Your task to perform on an android device: Play the last video I watched on Youtube Image 0: 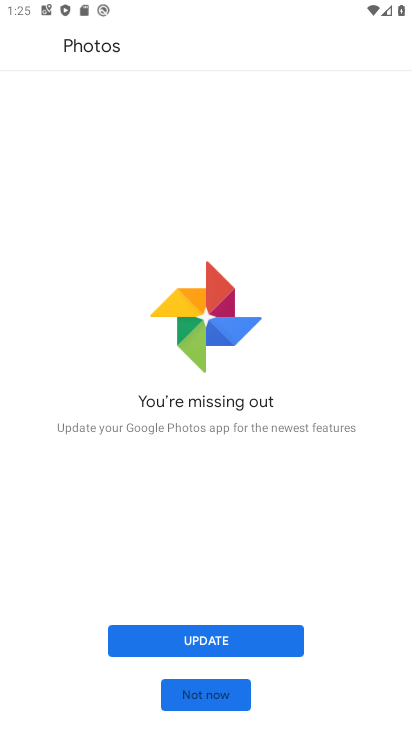
Step 0: press home button
Your task to perform on an android device: Play the last video I watched on Youtube Image 1: 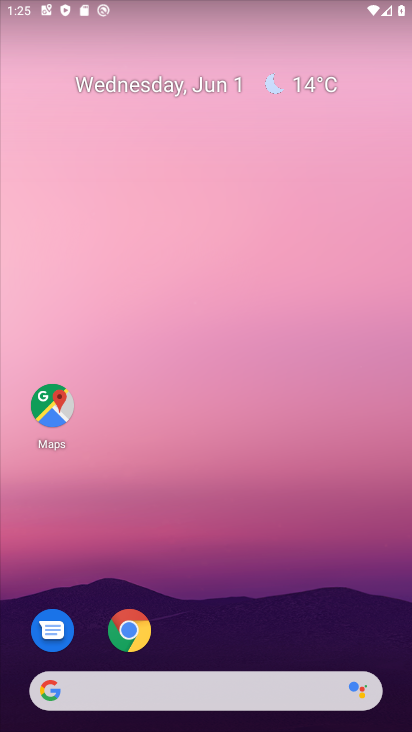
Step 1: drag from (207, 651) to (268, 94)
Your task to perform on an android device: Play the last video I watched on Youtube Image 2: 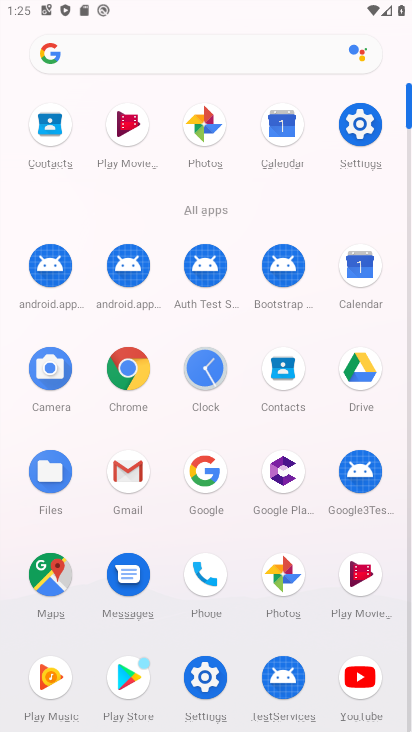
Step 2: click (358, 672)
Your task to perform on an android device: Play the last video I watched on Youtube Image 3: 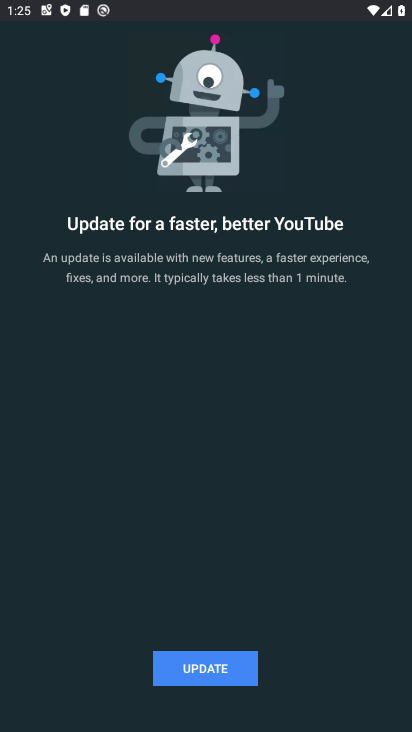
Step 3: click (204, 665)
Your task to perform on an android device: Play the last video I watched on Youtube Image 4: 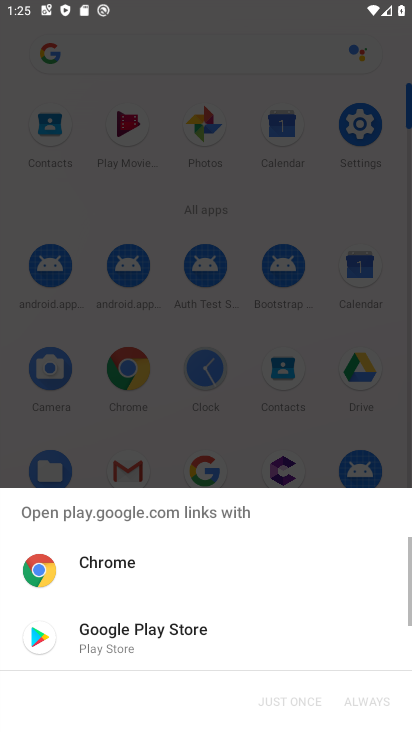
Step 4: click (86, 639)
Your task to perform on an android device: Play the last video I watched on Youtube Image 5: 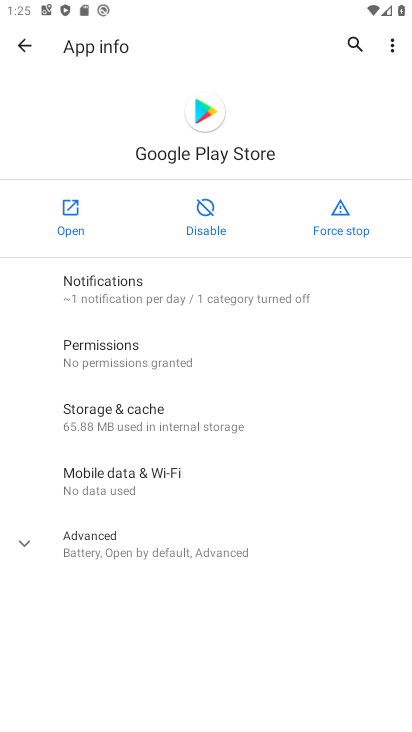
Step 5: click (31, 39)
Your task to perform on an android device: Play the last video I watched on Youtube Image 6: 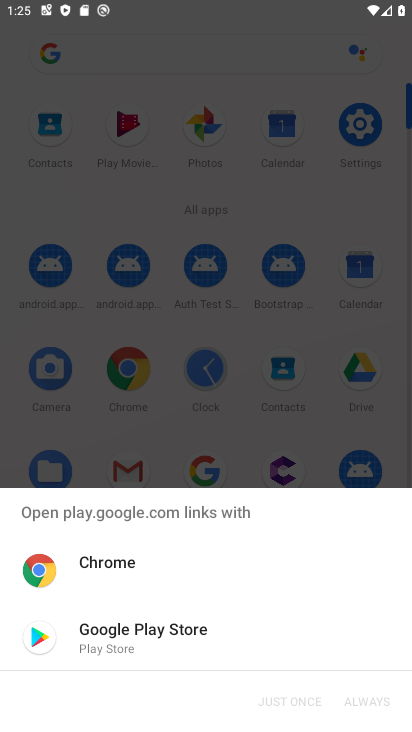
Step 6: click (251, 428)
Your task to perform on an android device: Play the last video I watched on Youtube Image 7: 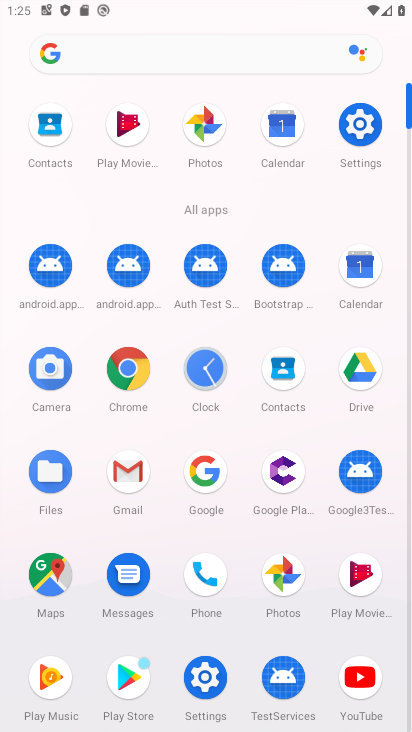
Step 7: click (356, 667)
Your task to perform on an android device: Play the last video I watched on Youtube Image 8: 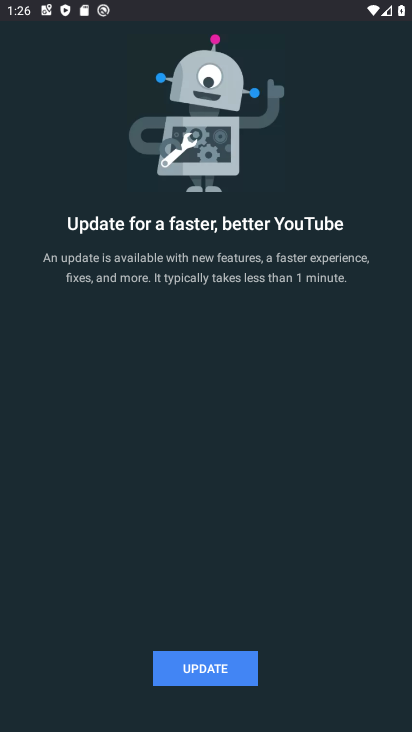
Step 8: click (206, 669)
Your task to perform on an android device: Play the last video I watched on Youtube Image 9: 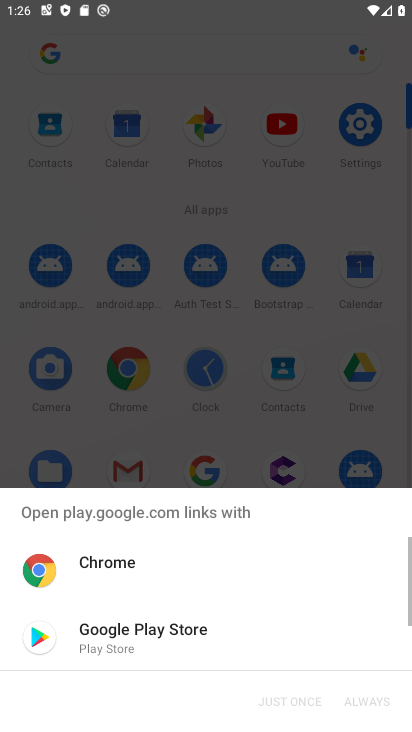
Step 9: click (102, 631)
Your task to perform on an android device: Play the last video I watched on Youtube Image 10: 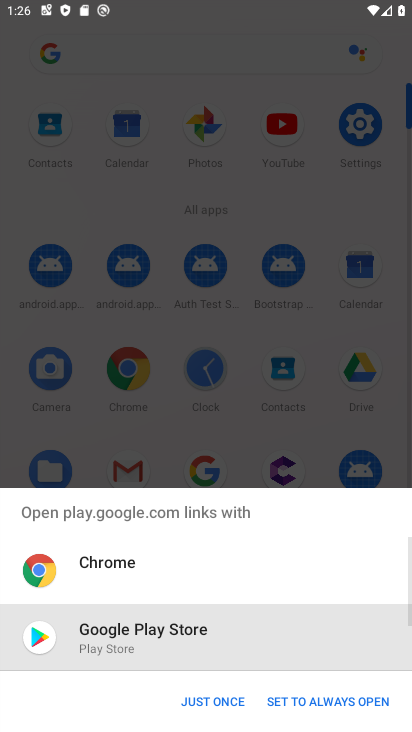
Step 10: click (213, 703)
Your task to perform on an android device: Play the last video I watched on Youtube Image 11: 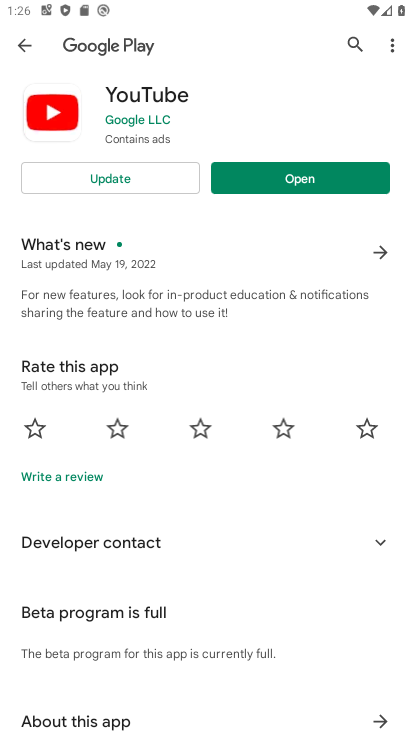
Step 11: click (133, 177)
Your task to perform on an android device: Play the last video I watched on Youtube Image 12: 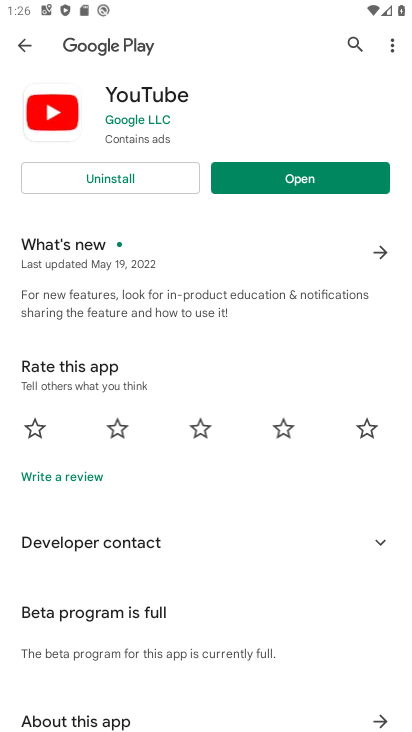
Step 12: click (307, 179)
Your task to perform on an android device: Play the last video I watched on Youtube Image 13: 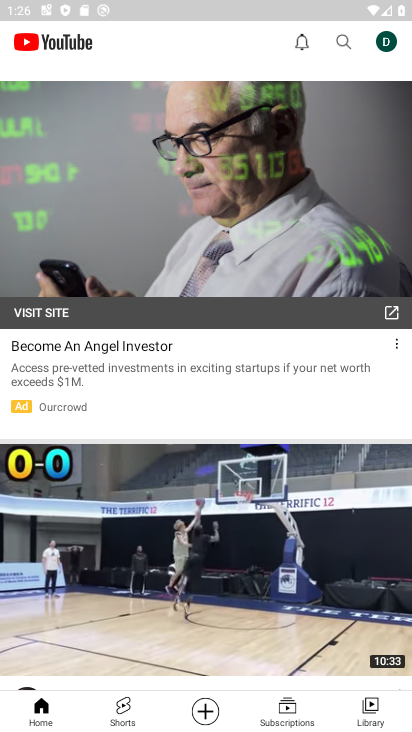
Step 13: task complete